Your task to perform on an android device: Search for the best websites on the internet Image 0: 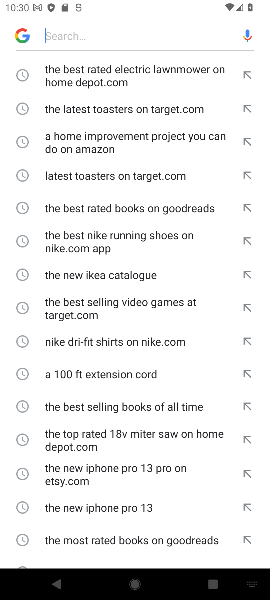
Step 0: press home button
Your task to perform on an android device: Search for the best websites on the internet Image 1: 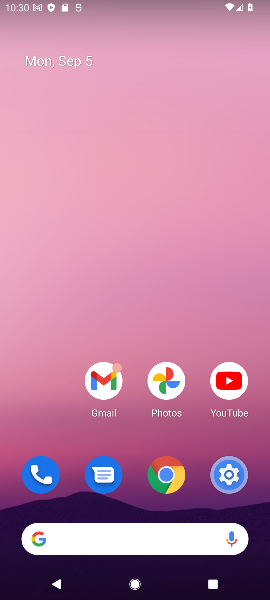
Step 1: click (165, 536)
Your task to perform on an android device: Search for the best websites on the internet Image 2: 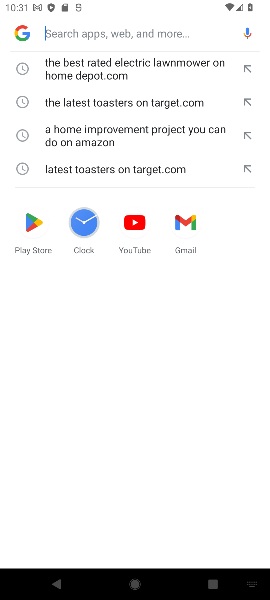
Step 2: drag from (209, 596) to (242, 599)
Your task to perform on an android device: Search for the best websites on the internet Image 3: 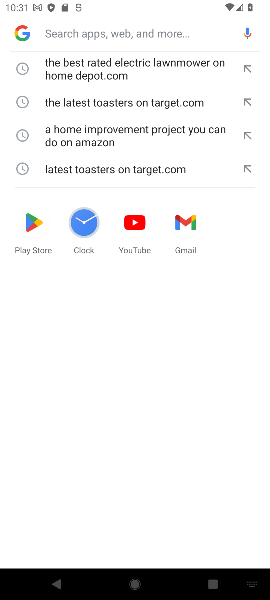
Step 3: type " the best websites on the internet"
Your task to perform on an android device: Search for the best websites on the internet Image 4: 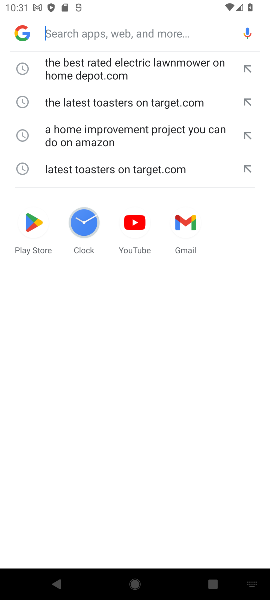
Step 4: drag from (242, 599) to (235, 197)
Your task to perform on an android device: Search for the best websites on the internet Image 5: 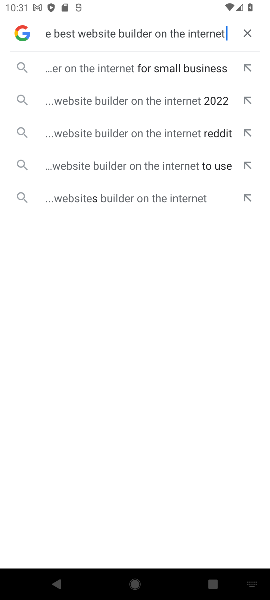
Step 5: click (66, 67)
Your task to perform on an android device: Search for the best websites on the internet Image 6: 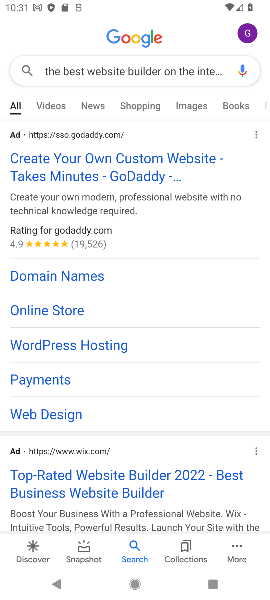
Step 6: click (199, 66)
Your task to perform on an android device: Search for the best websites on the internet Image 7: 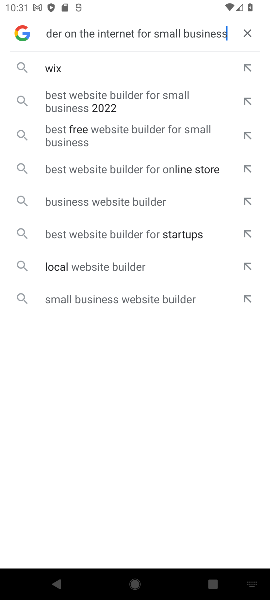
Step 7: click (243, 36)
Your task to perform on an android device: Search for the best websites on the internet Image 8: 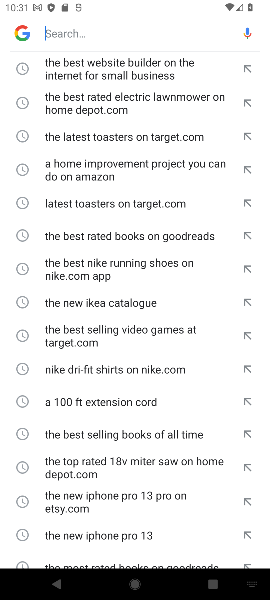
Step 8: type "the best websites on the internet"
Your task to perform on an android device: Search for the best websites on the internet Image 9: 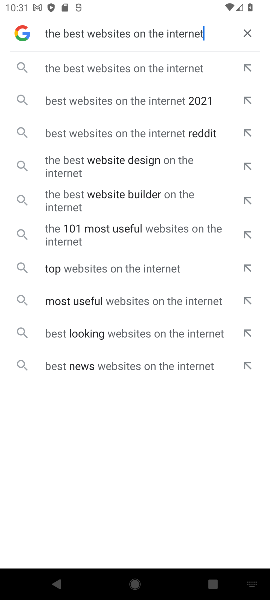
Step 9: click (124, 73)
Your task to perform on an android device: Search for the best websites on the internet Image 10: 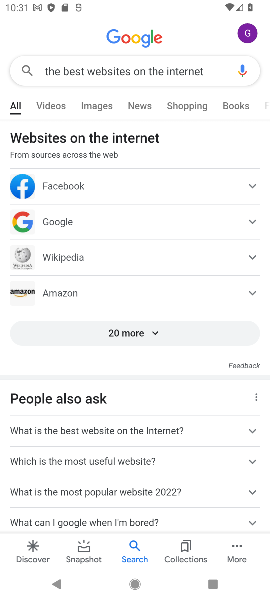
Step 10: task complete